Your task to perform on an android device: clear history in the chrome app Image 0: 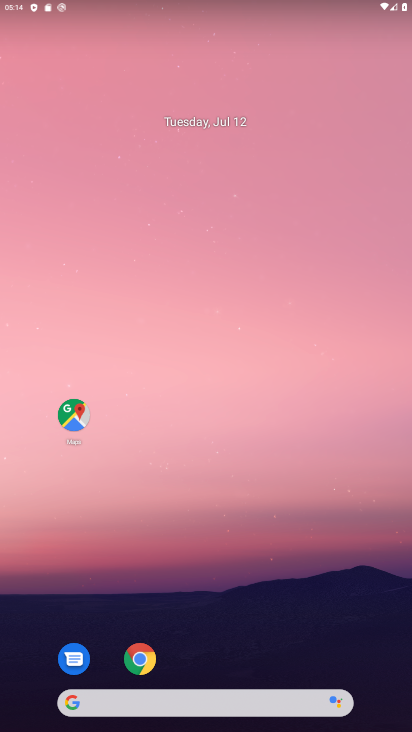
Step 0: drag from (347, 662) to (284, 184)
Your task to perform on an android device: clear history in the chrome app Image 1: 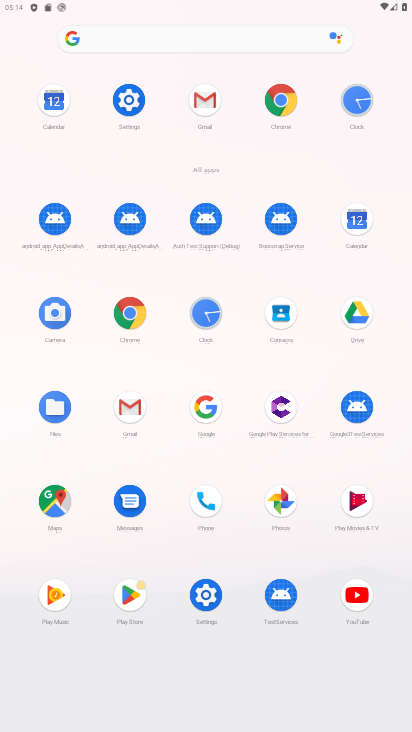
Step 1: click (130, 313)
Your task to perform on an android device: clear history in the chrome app Image 2: 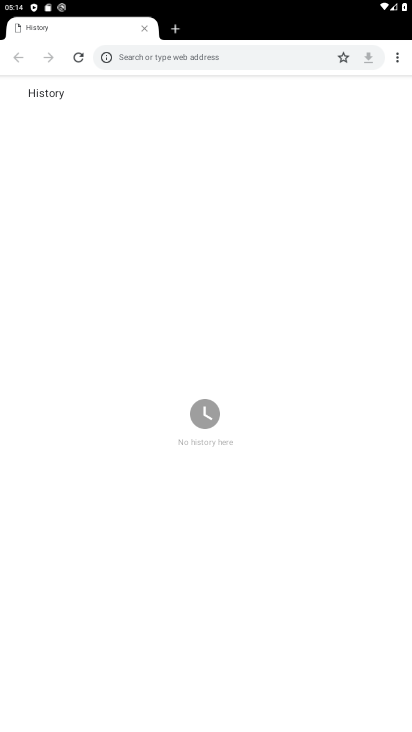
Step 2: task complete